Your task to perform on an android device: turn on showing notifications on the lock screen Image 0: 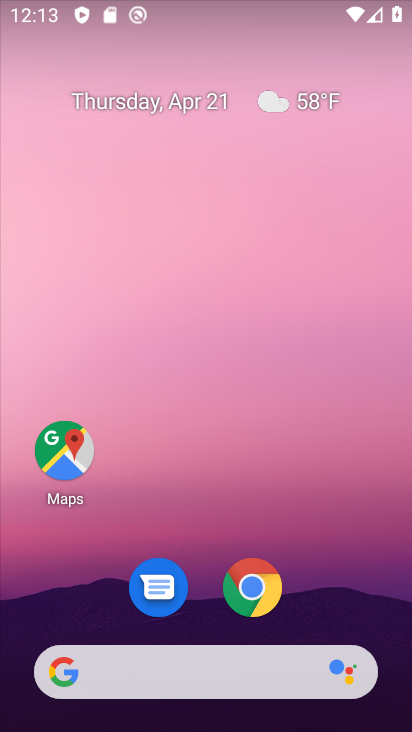
Step 0: drag from (288, 613) to (395, 65)
Your task to perform on an android device: turn on showing notifications on the lock screen Image 1: 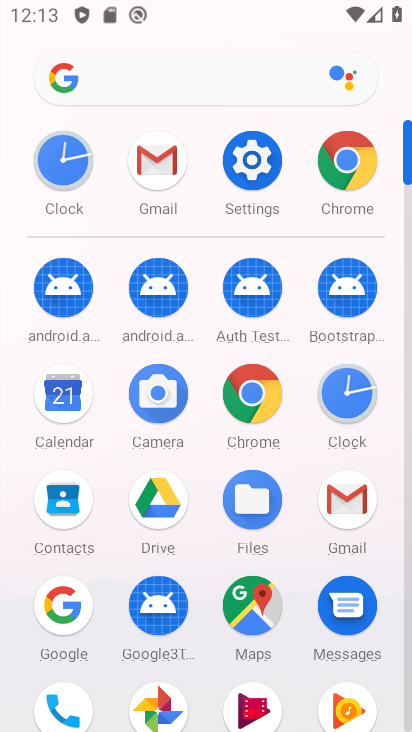
Step 1: click (251, 163)
Your task to perform on an android device: turn on showing notifications on the lock screen Image 2: 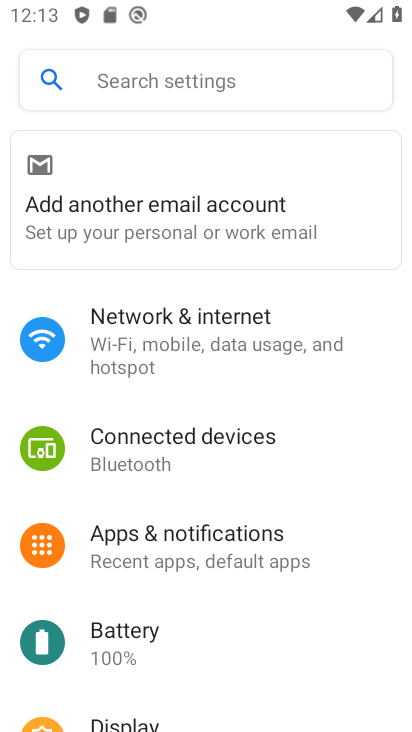
Step 2: click (165, 538)
Your task to perform on an android device: turn on showing notifications on the lock screen Image 3: 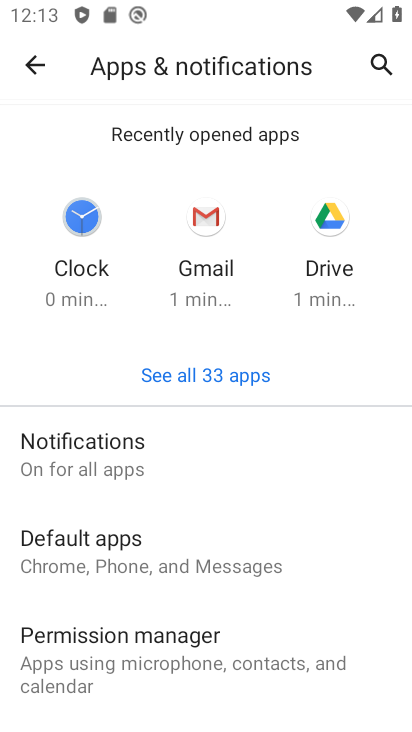
Step 3: click (126, 437)
Your task to perform on an android device: turn on showing notifications on the lock screen Image 4: 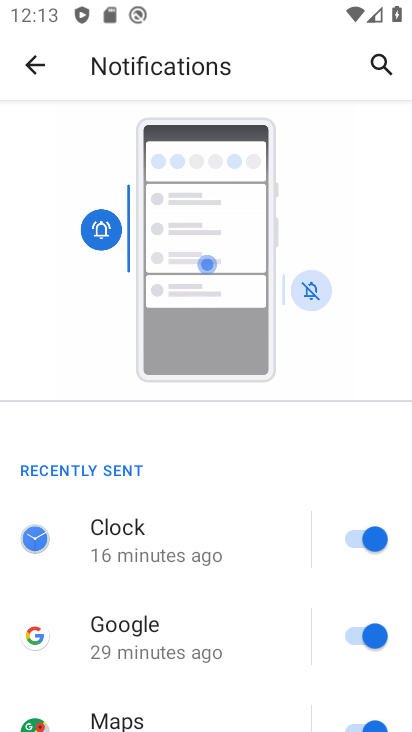
Step 4: drag from (129, 569) to (271, 119)
Your task to perform on an android device: turn on showing notifications on the lock screen Image 5: 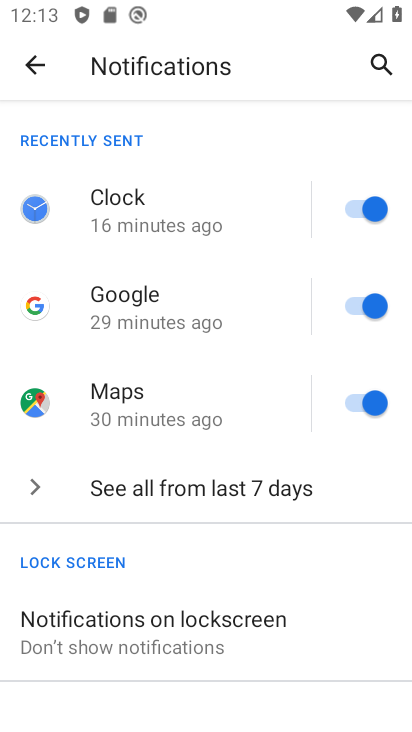
Step 5: click (125, 626)
Your task to perform on an android device: turn on showing notifications on the lock screen Image 6: 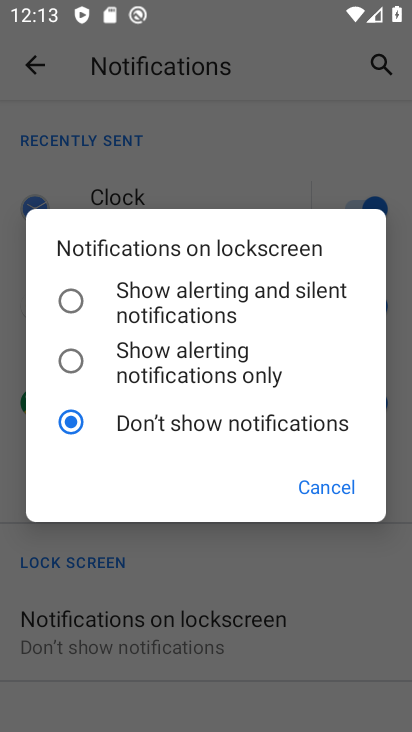
Step 6: click (115, 299)
Your task to perform on an android device: turn on showing notifications on the lock screen Image 7: 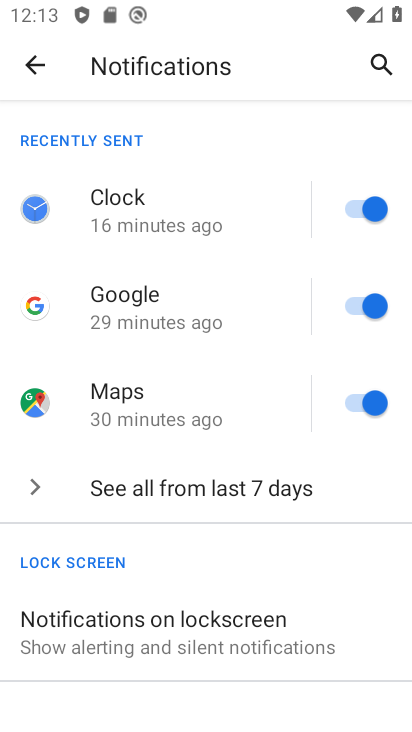
Step 7: task complete